Your task to perform on an android device: delete a single message in the gmail app Image 0: 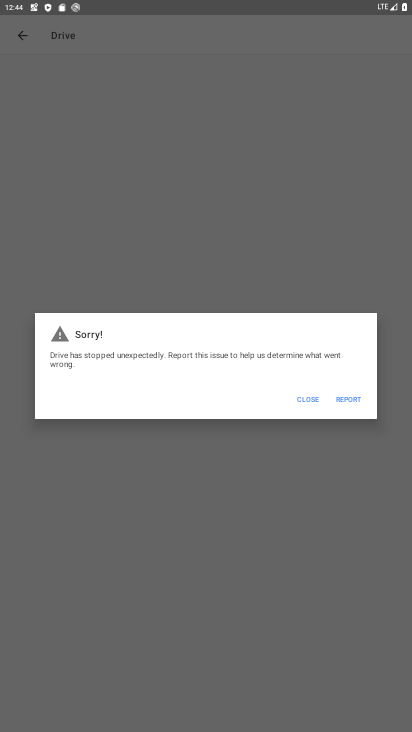
Step 0: click (346, 397)
Your task to perform on an android device: delete a single message in the gmail app Image 1: 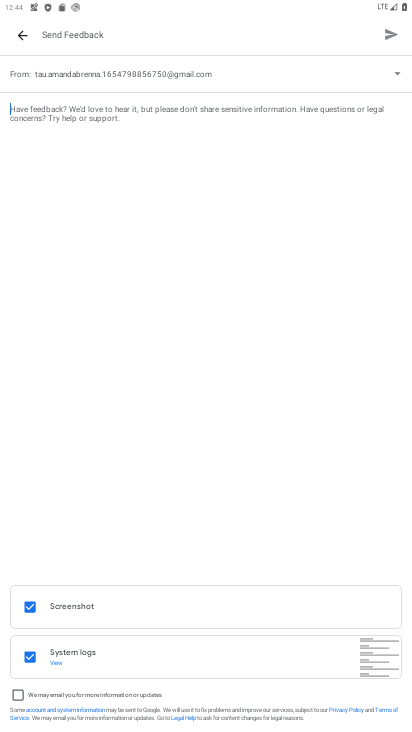
Step 1: click (18, 694)
Your task to perform on an android device: delete a single message in the gmail app Image 2: 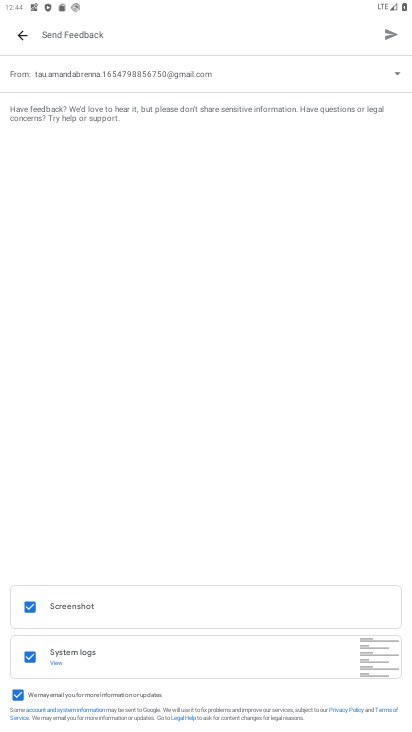
Step 2: click (387, 36)
Your task to perform on an android device: delete a single message in the gmail app Image 3: 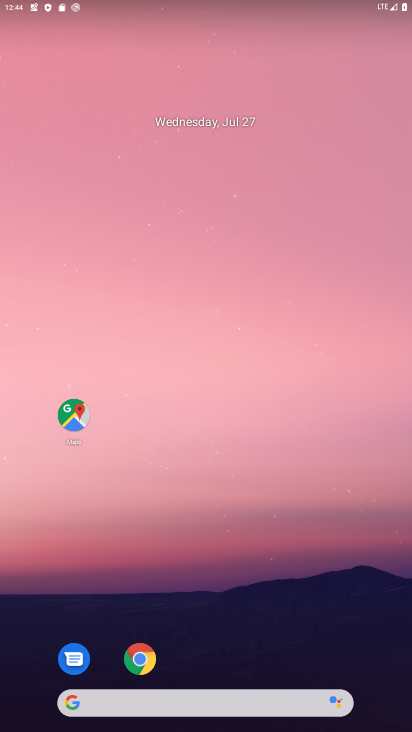
Step 3: drag from (222, 649) to (294, 312)
Your task to perform on an android device: delete a single message in the gmail app Image 4: 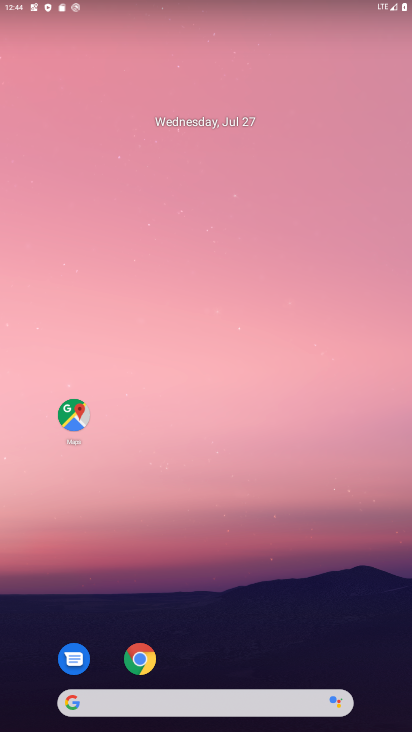
Step 4: drag from (240, 646) to (310, 5)
Your task to perform on an android device: delete a single message in the gmail app Image 5: 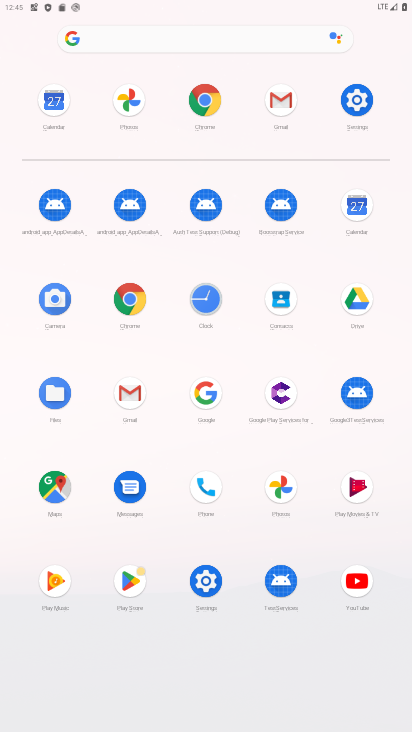
Step 5: click (136, 398)
Your task to perform on an android device: delete a single message in the gmail app Image 6: 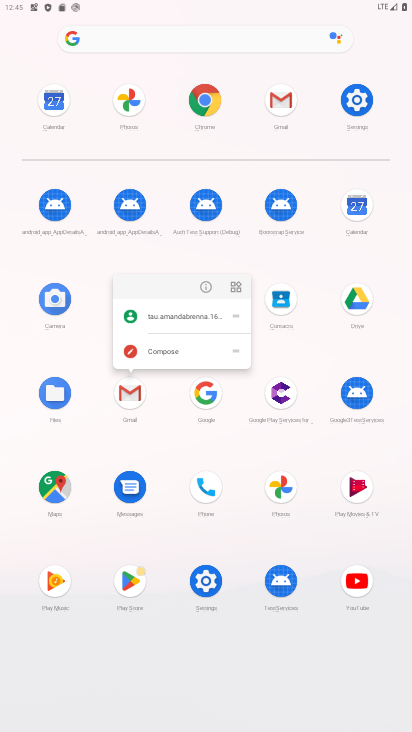
Step 6: click (134, 394)
Your task to perform on an android device: delete a single message in the gmail app Image 7: 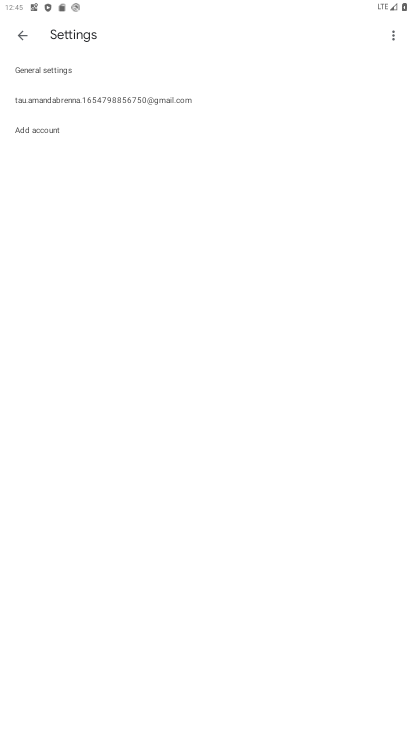
Step 7: click (24, 37)
Your task to perform on an android device: delete a single message in the gmail app Image 8: 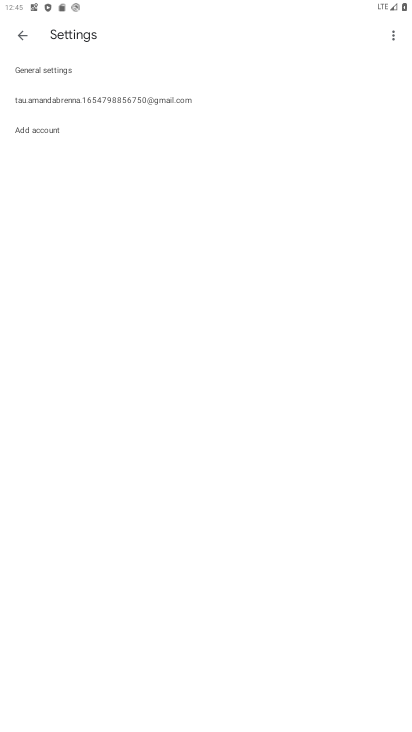
Step 8: click (24, 37)
Your task to perform on an android device: delete a single message in the gmail app Image 9: 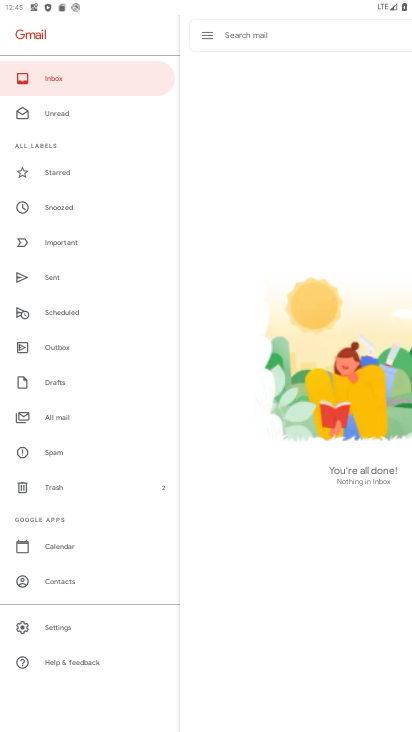
Step 9: click (56, 412)
Your task to perform on an android device: delete a single message in the gmail app Image 10: 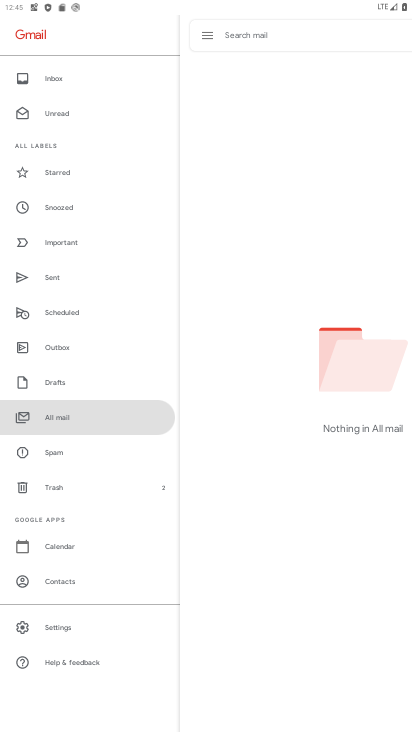
Step 10: task complete